Your task to perform on an android device: Open calendar and show me the fourth week of next month Image 0: 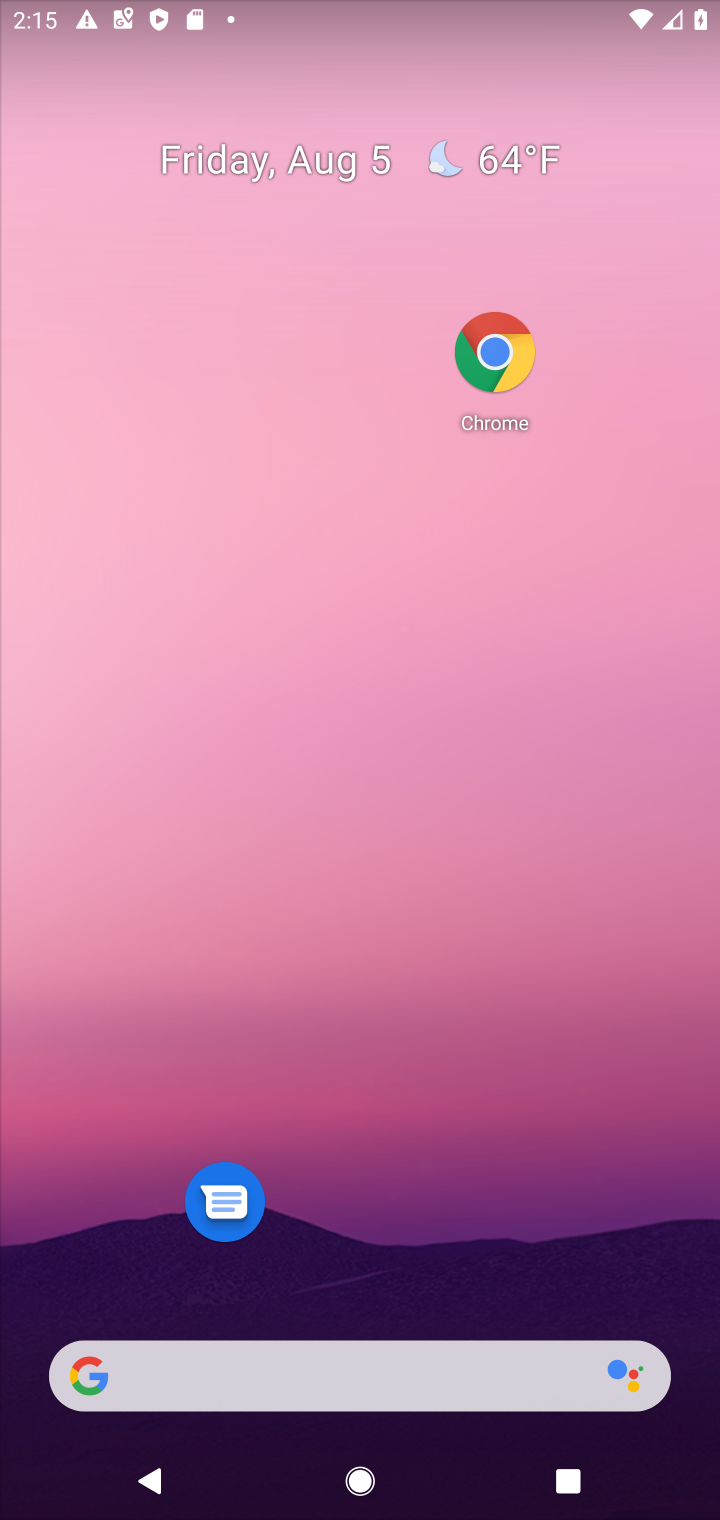
Step 0: press home button
Your task to perform on an android device: Open calendar and show me the fourth week of next month Image 1: 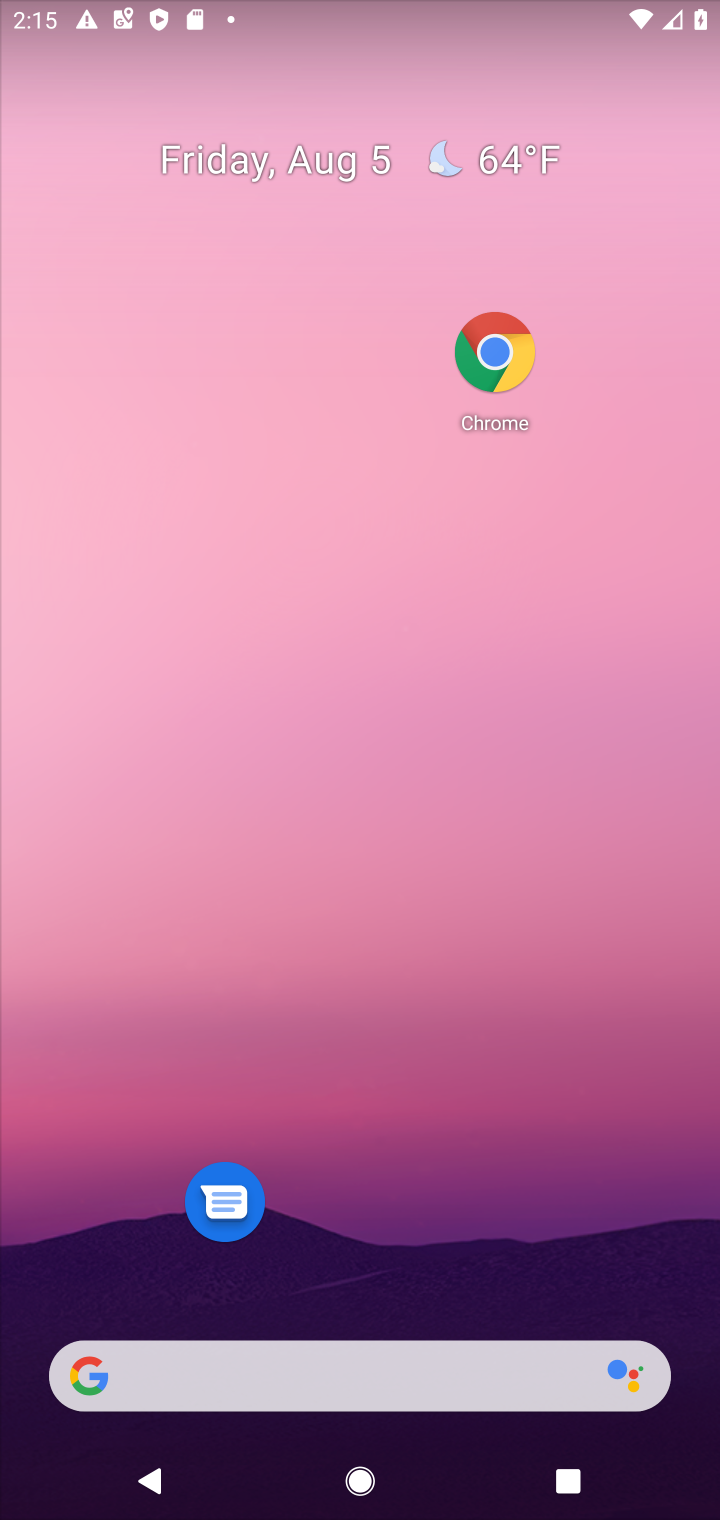
Step 1: drag from (524, 207) to (496, 0)
Your task to perform on an android device: Open calendar and show me the fourth week of next month Image 2: 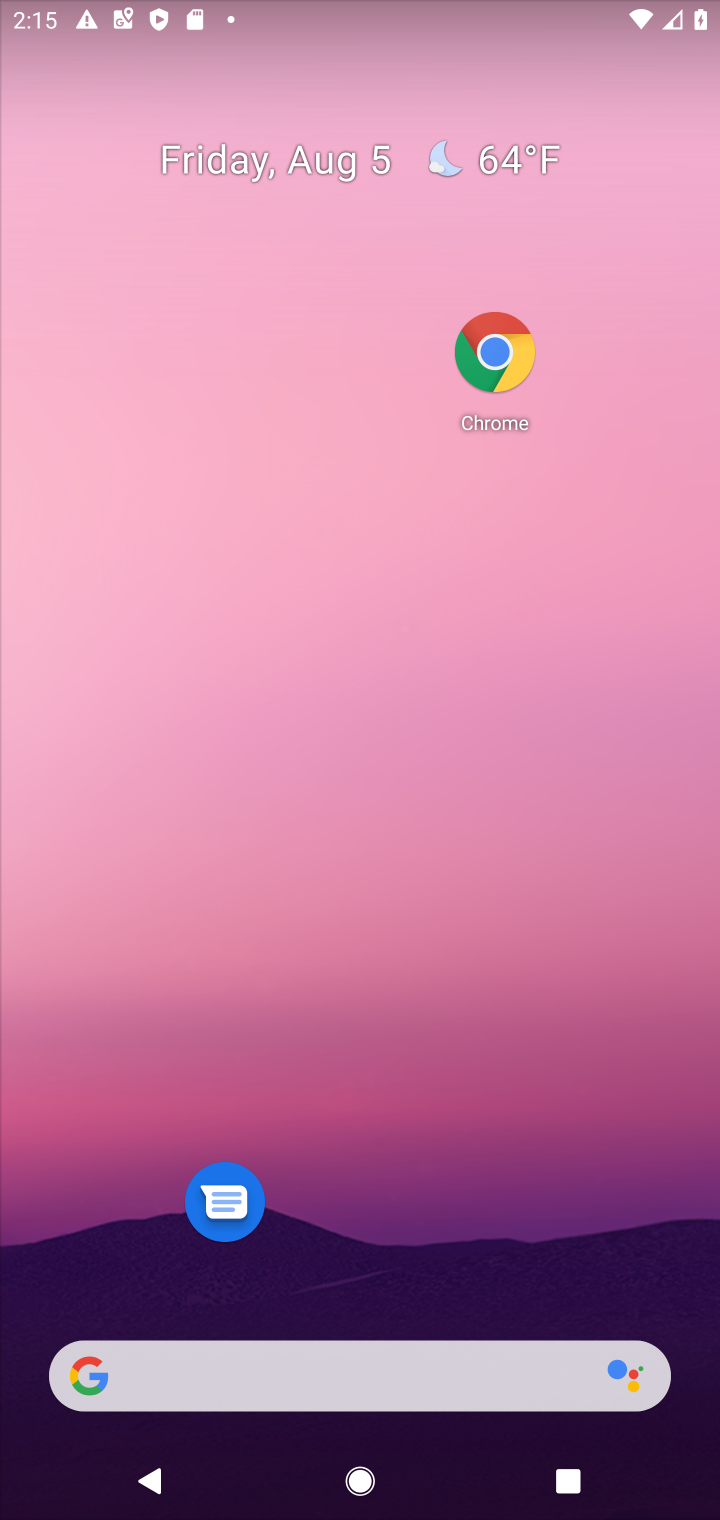
Step 2: drag from (371, 884) to (351, 144)
Your task to perform on an android device: Open calendar and show me the fourth week of next month Image 3: 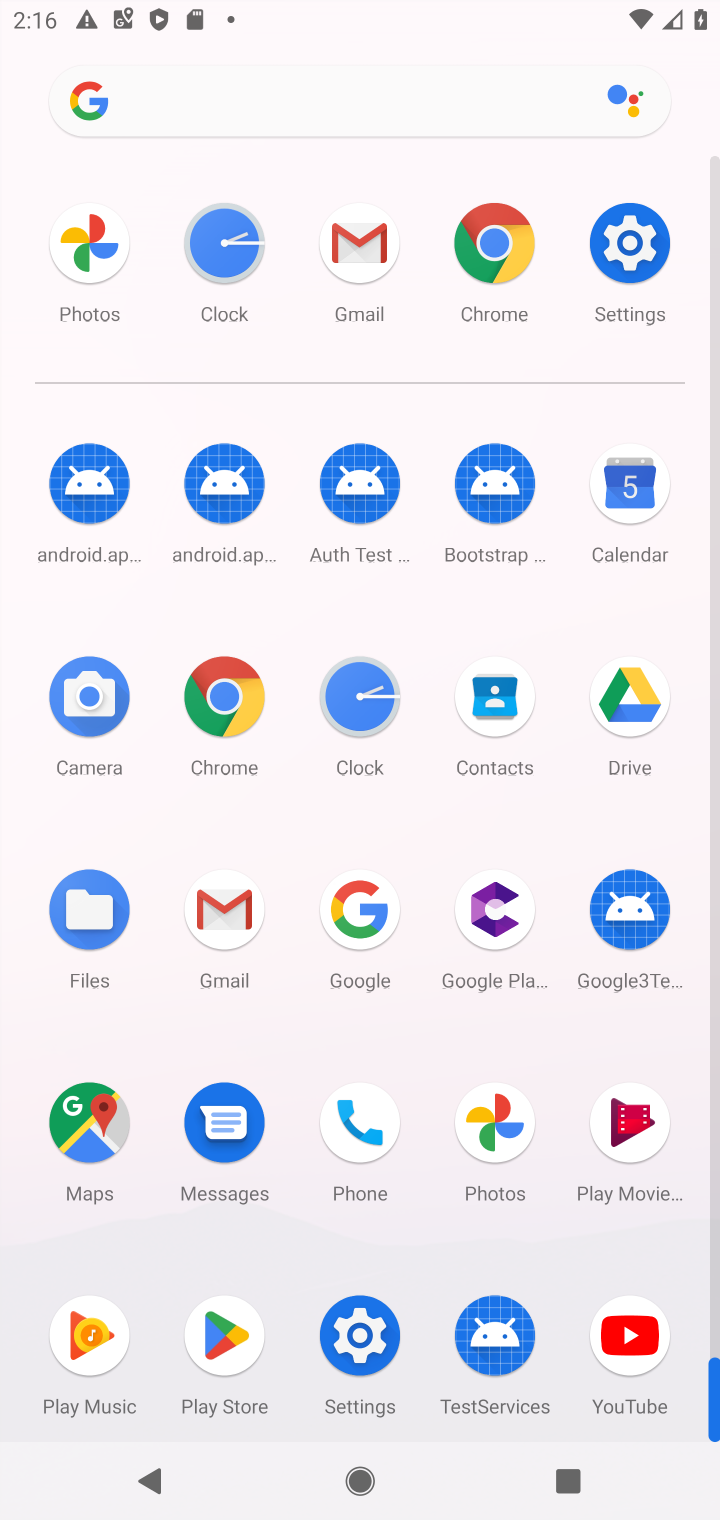
Step 3: click (493, 684)
Your task to perform on an android device: Open calendar and show me the fourth week of next month Image 4: 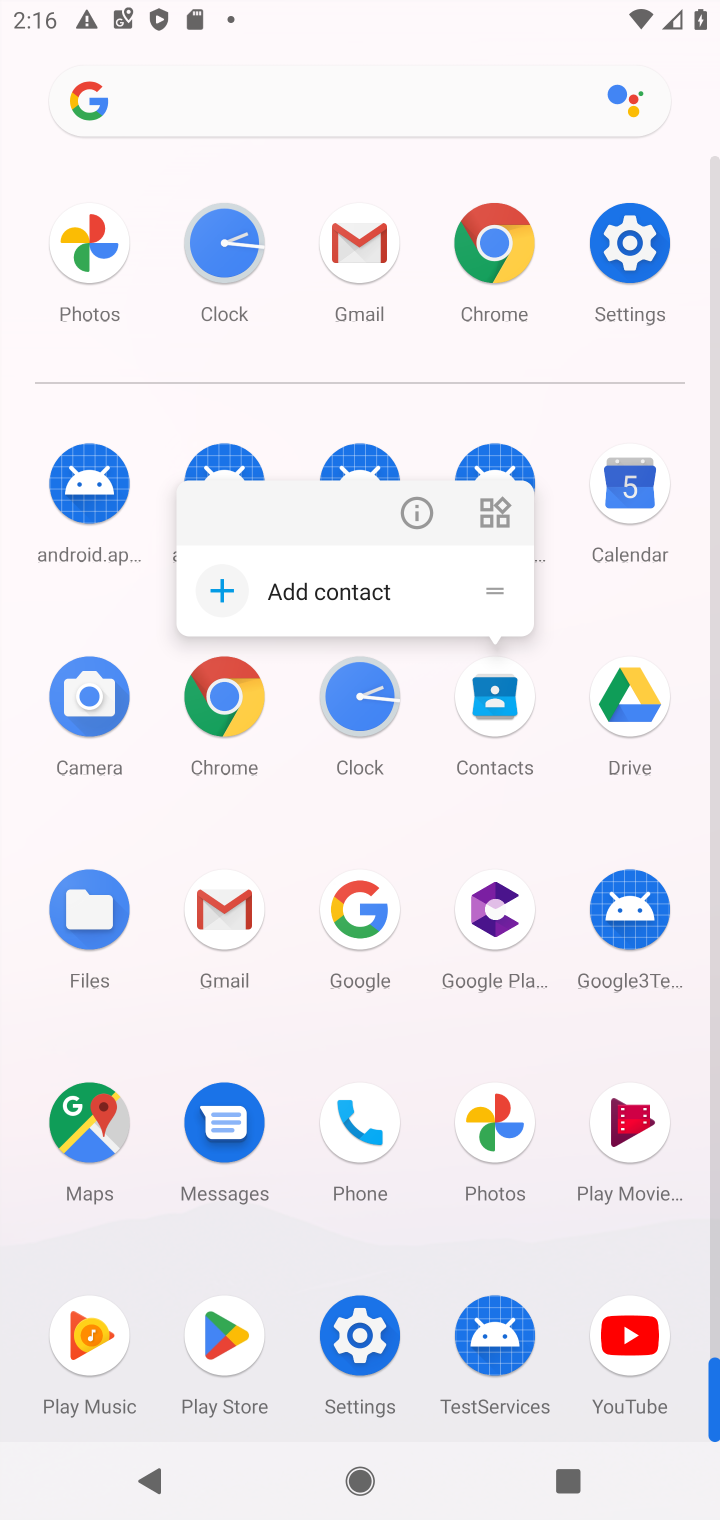
Step 4: click (632, 488)
Your task to perform on an android device: Open calendar and show me the fourth week of next month Image 5: 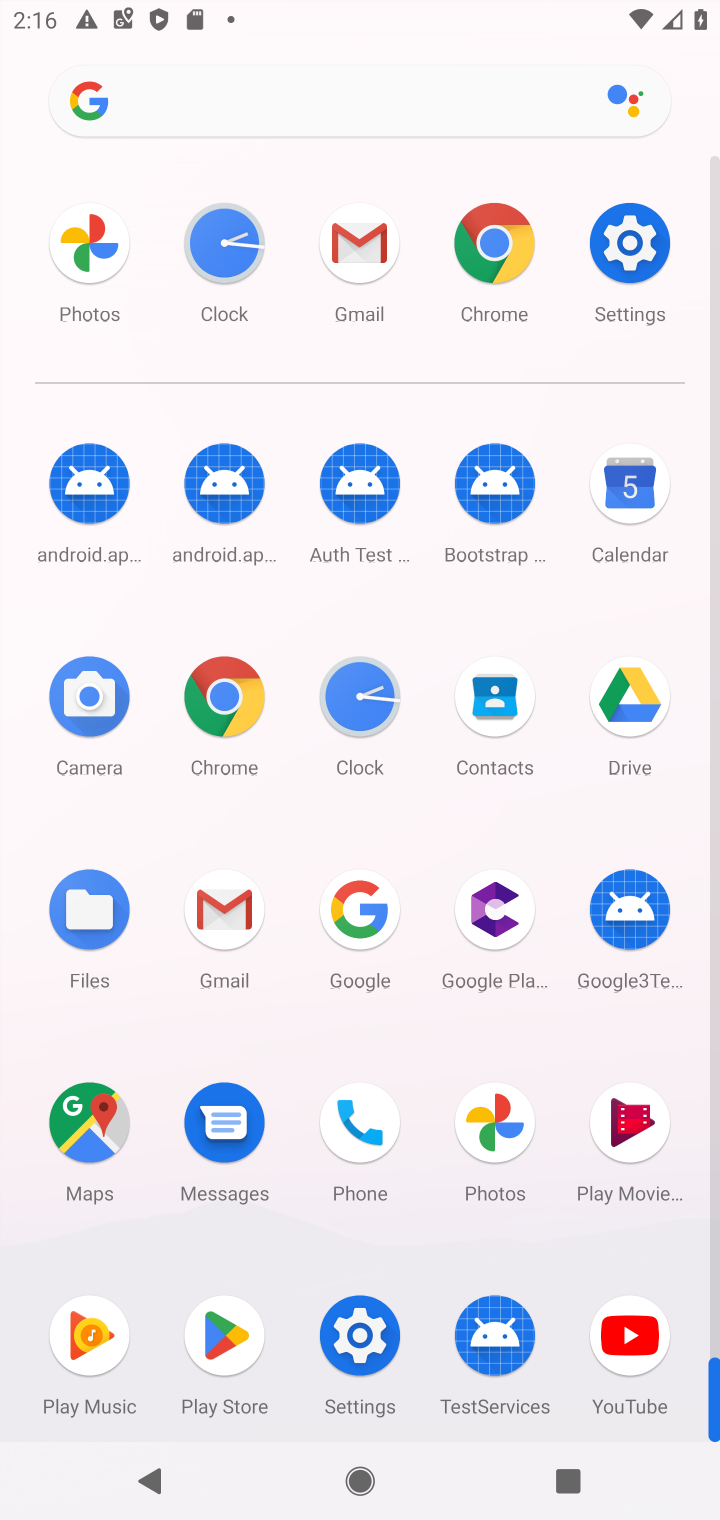
Step 5: click (623, 497)
Your task to perform on an android device: Open calendar and show me the fourth week of next month Image 6: 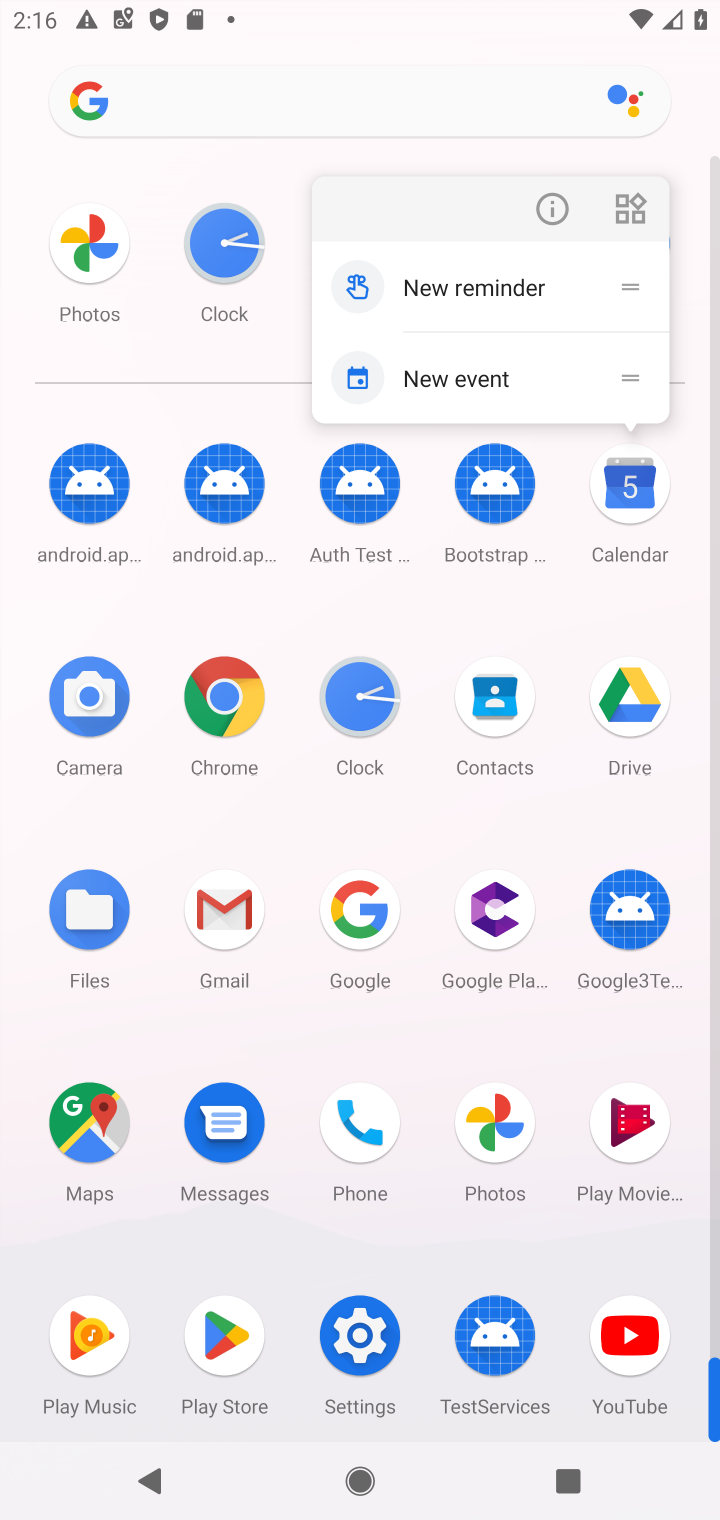
Step 6: click (625, 490)
Your task to perform on an android device: Open calendar and show me the fourth week of next month Image 7: 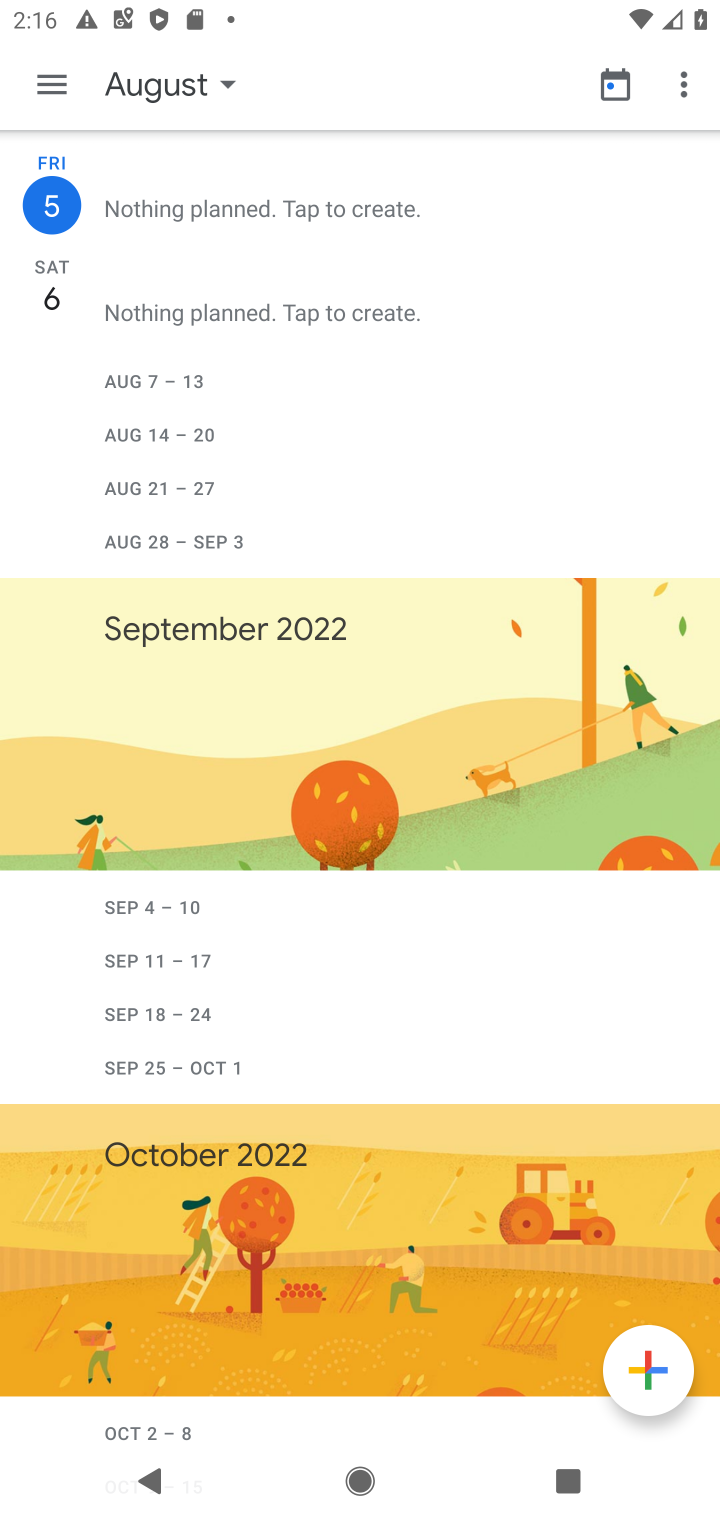
Step 7: click (139, 79)
Your task to perform on an android device: Open calendar and show me the fourth week of next month Image 8: 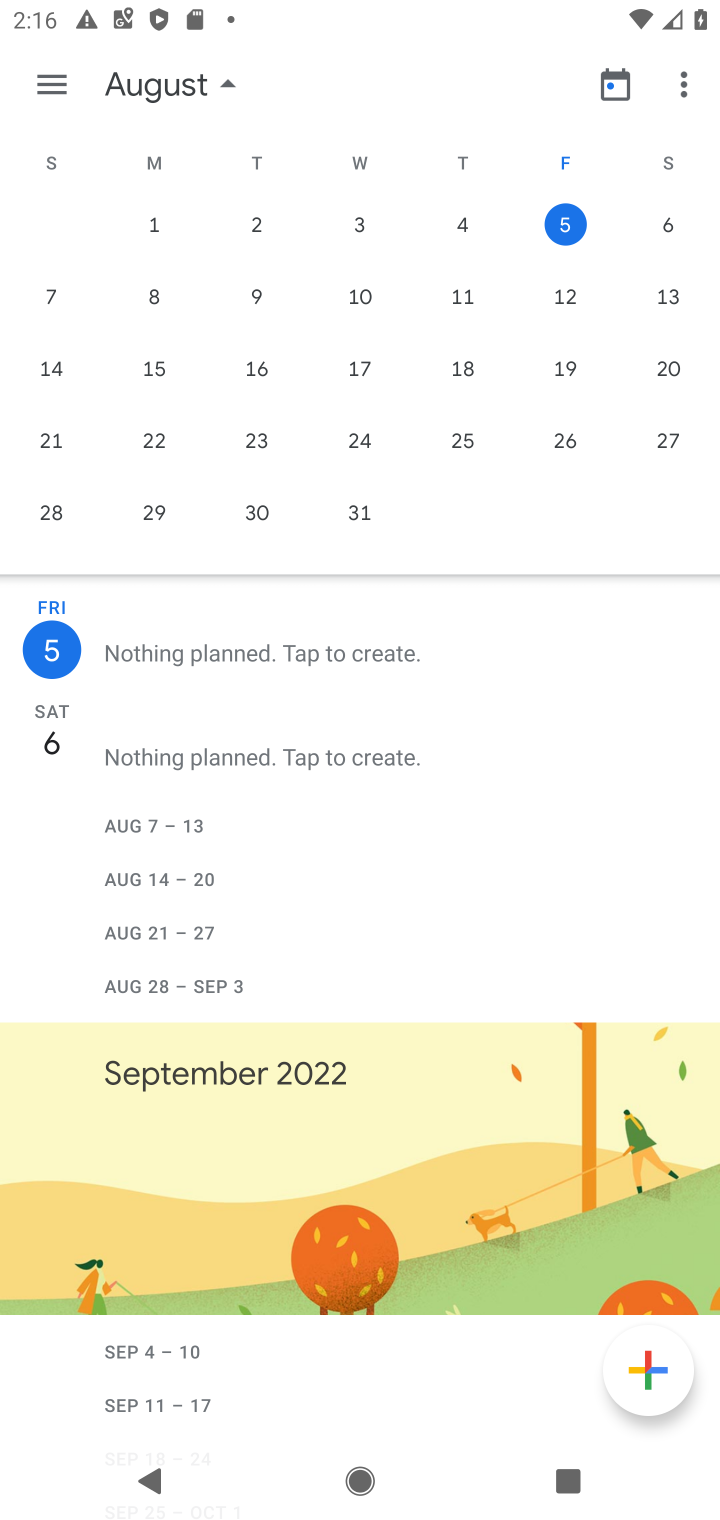
Step 8: drag from (663, 321) to (28, 328)
Your task to perform on an android device: Open calendar and show me the fourth week of next month Image 9: 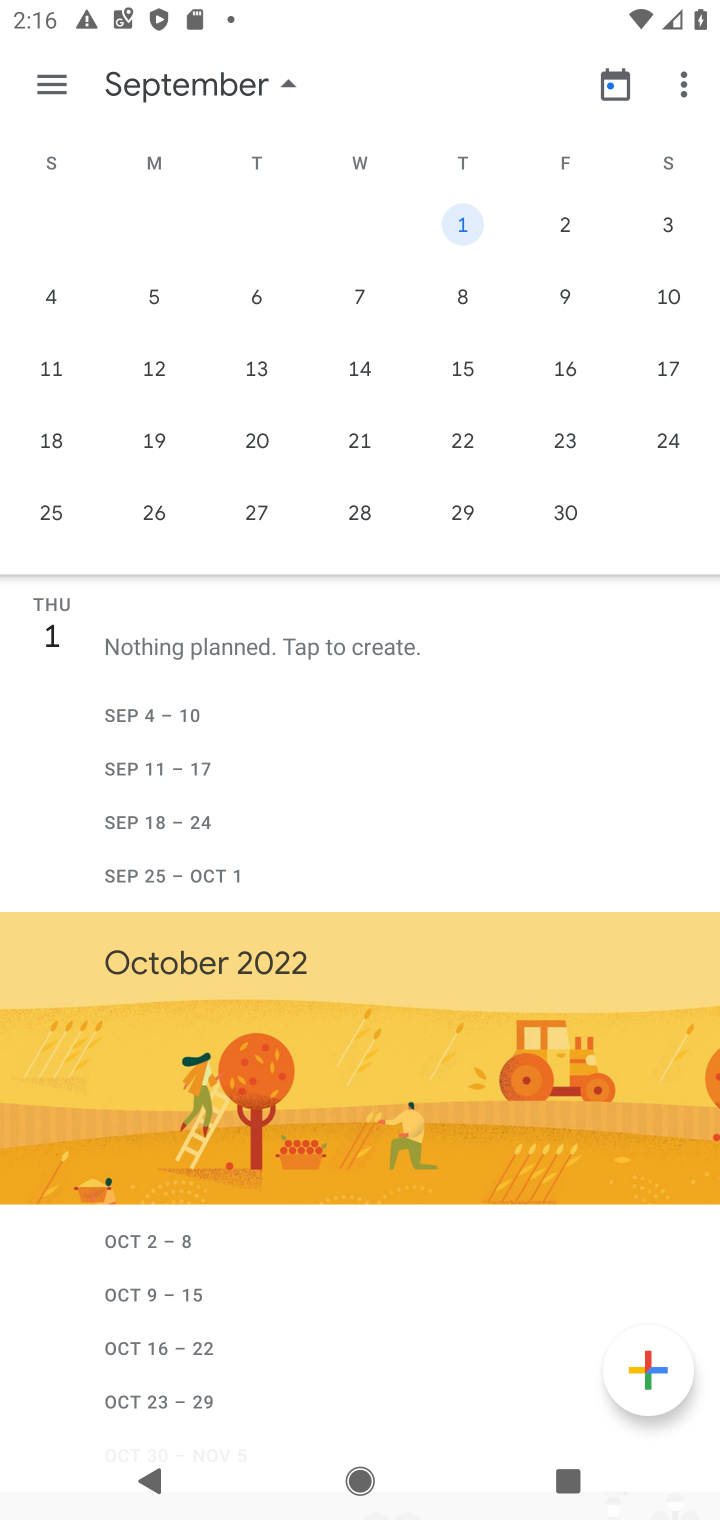
Step 9: click (245, 502)
Your task to perform on an android device: Open calendar and show me the fourth week of next month Image 10: 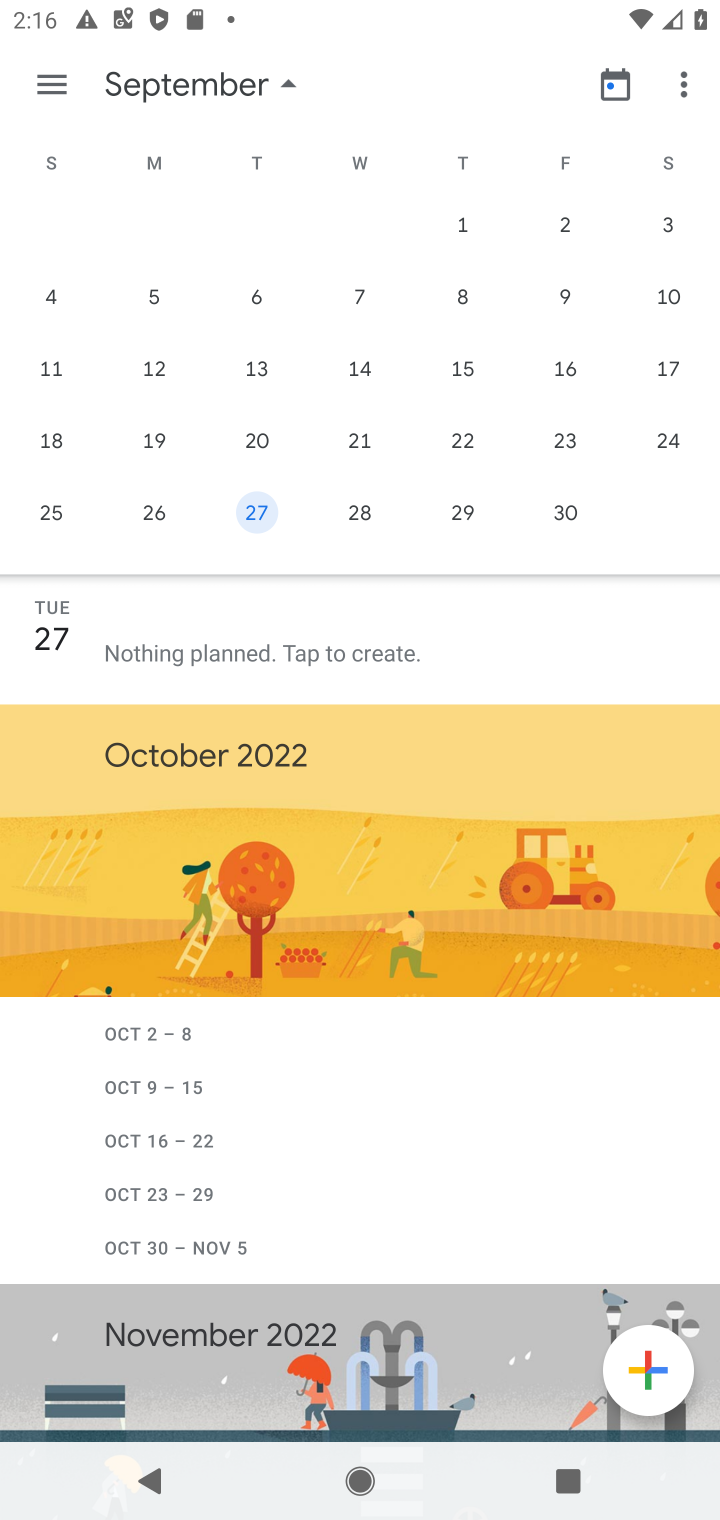
Step 10: click (36, 73)
Your task to perform on an android device: Open calendar and show me the fourth week of next month Image 11: 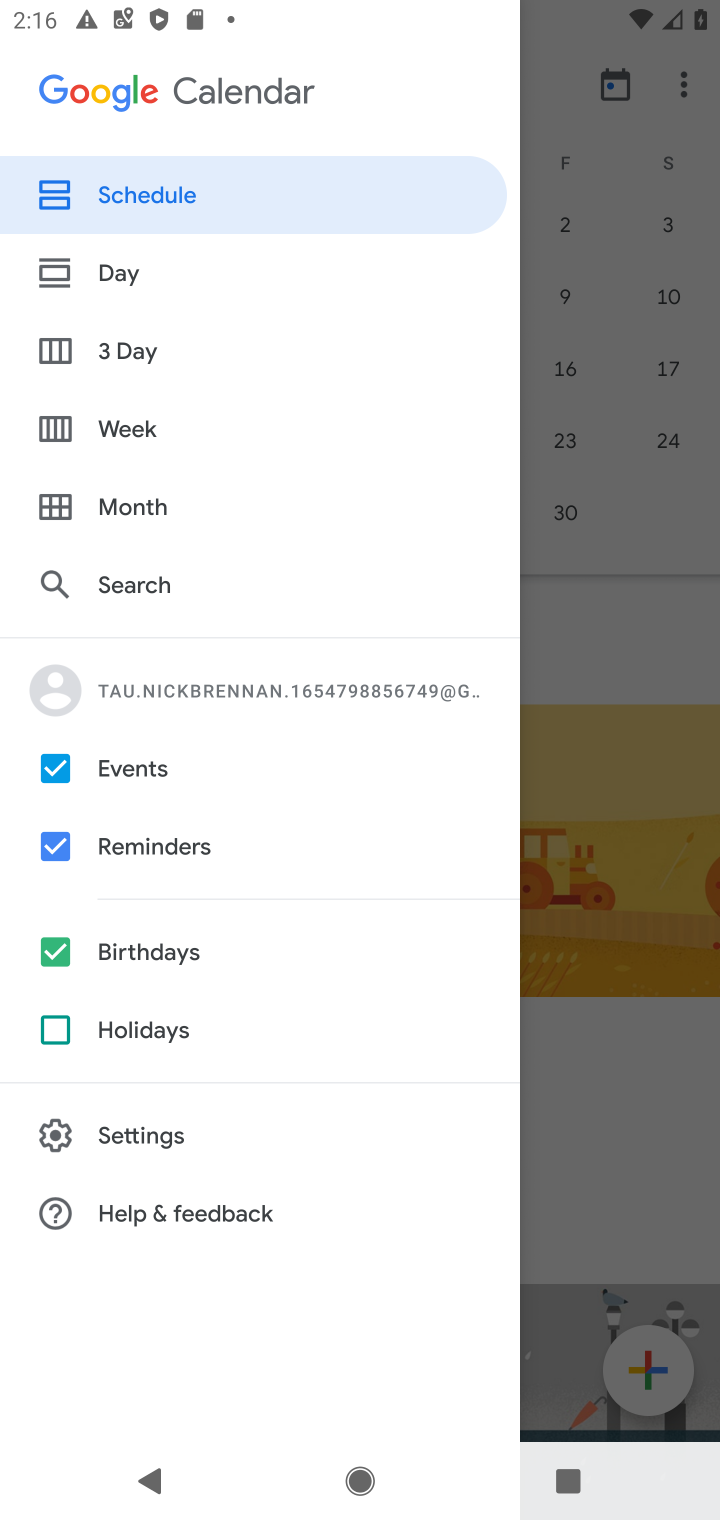
Step 11: click (167, 413)
Your task to perform on an android device: Open calendar and show me the fourth week of next month Image 12: 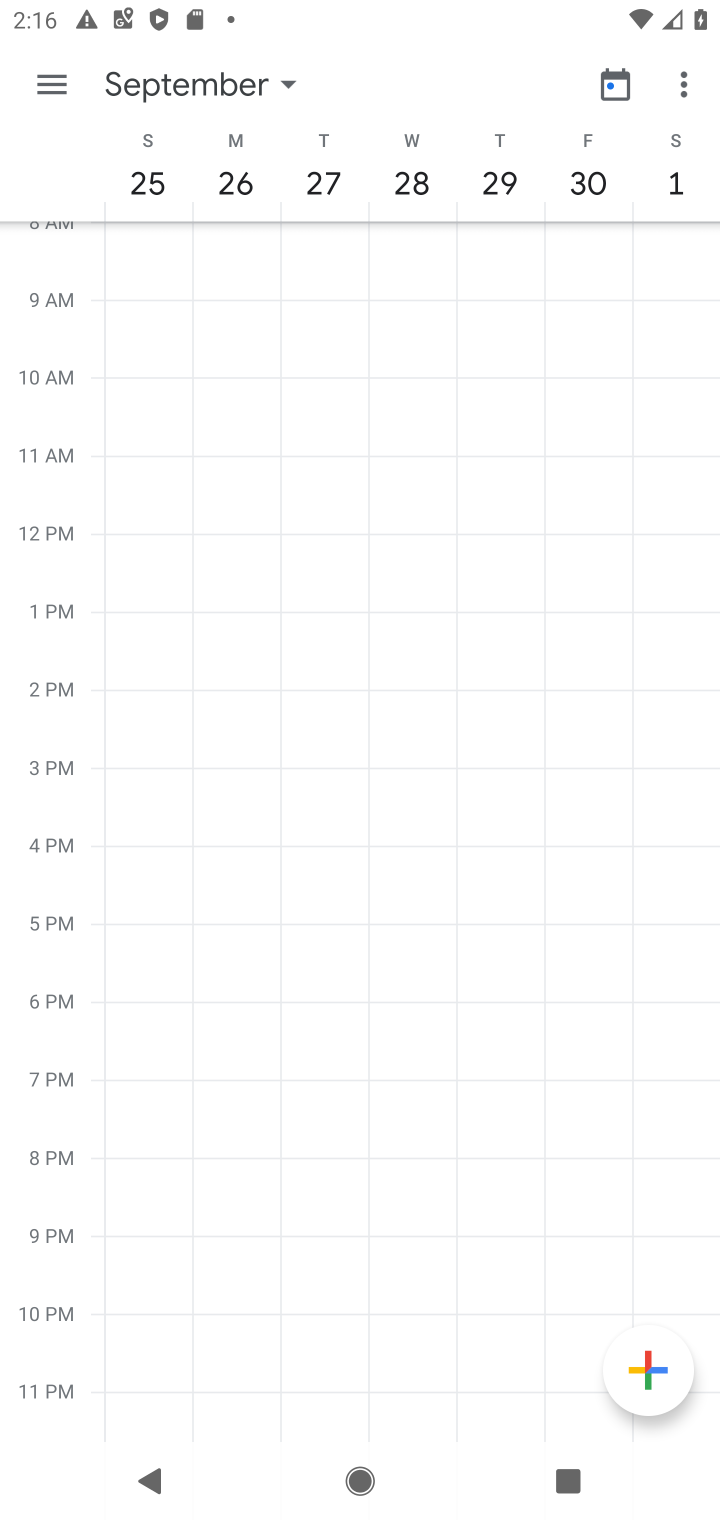
Step 12: task complete